Your task to perform on an android device: add a label to a message in the gmail app Image 0: 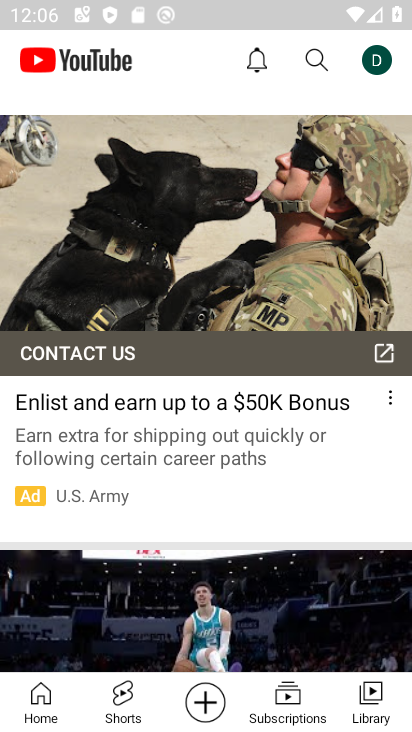
Step 0: press home button
Your task to perform on an android device: add a label to a message in the gmail app Image 1: 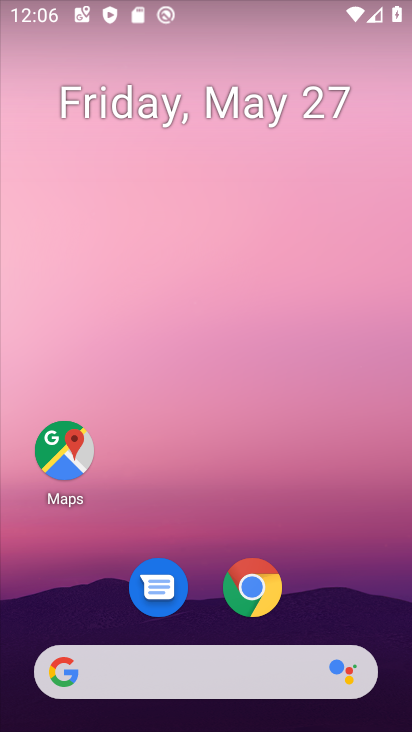
Step 1: drag from (115, 727) to (89, 5)
Your task to perform on an android device: add a label to a message in the gmail app Image 2: 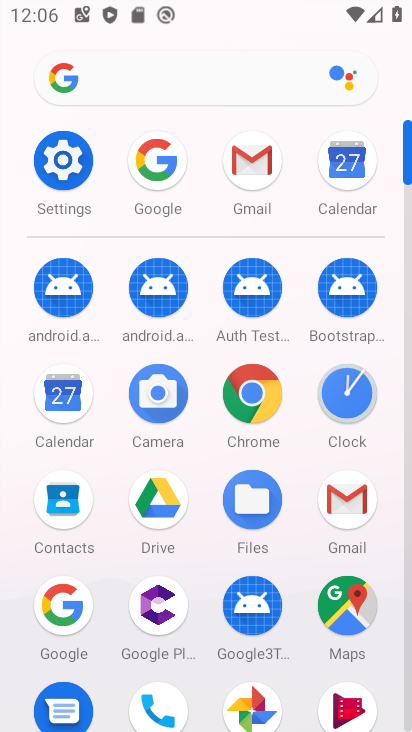
Step 2: click (251, 172)
Your task to perform on an android device: add a label to a message in the gmail app Image 3: 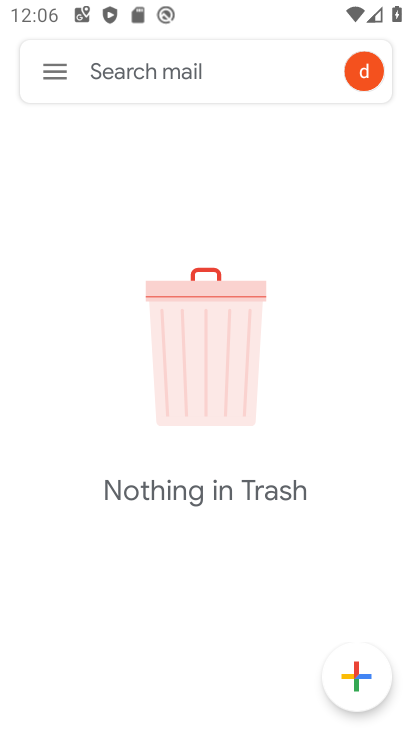
Step 3: click (46, 72)
Your task to perform on an android device: add a label to a message in the gmail app Image 4: 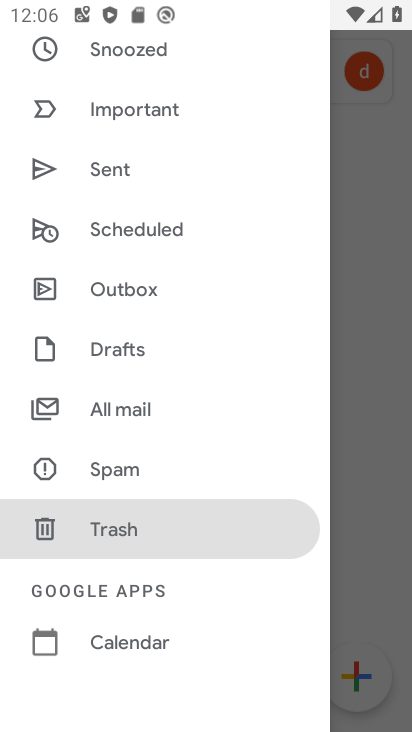
Step 4: click (165, 414)
Your task to perform on an android device: add a label to a message in the gmail app Image 5: 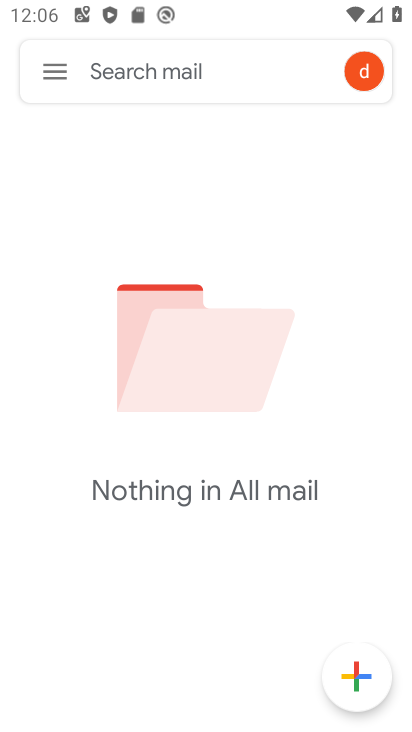
Step 5: click (48, 68)
Your task to perform on an android device: add a label to a message in the gmail app Image 6: 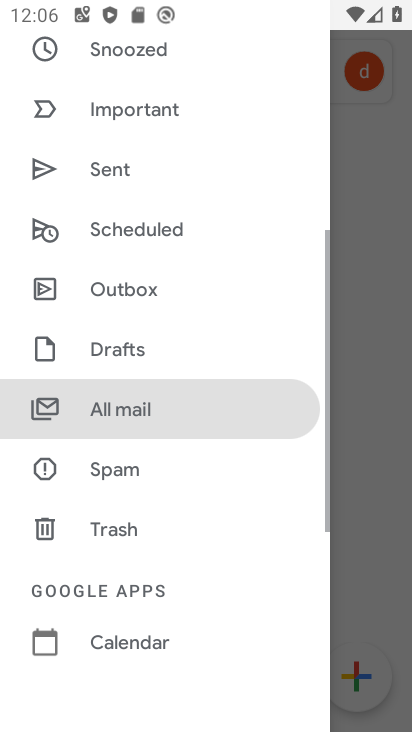
Step 6: drag from (224, 90) to (248, 673)
Your task to perform on an android device: add a label to a message in the gmail app Image 7: 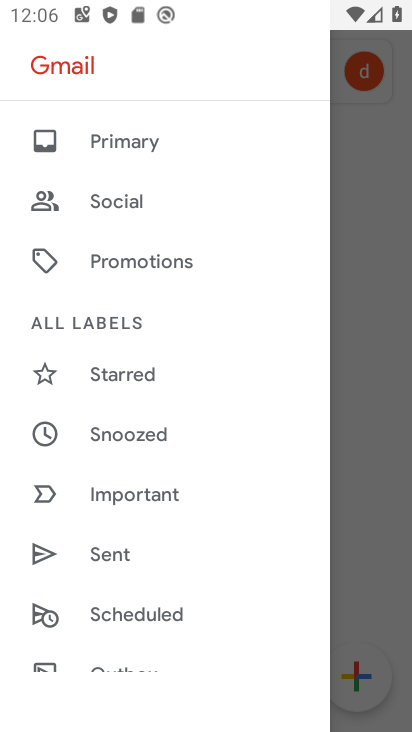
Step 7: click (130, 161)
Your task to perform on an android device: add a label to a message in the gmail app Image 8: 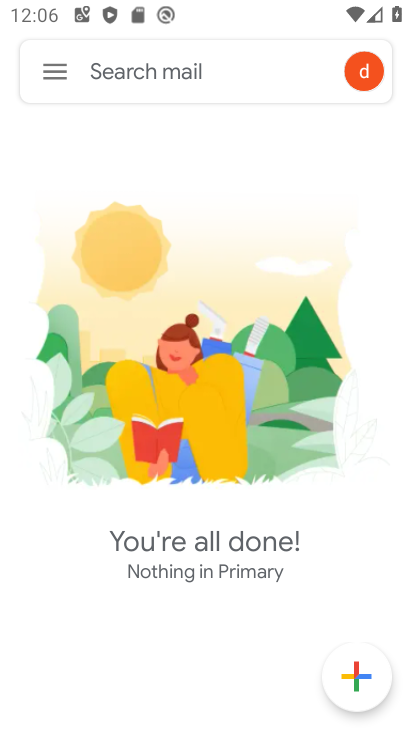
Step 8: click (64, 76)
Your task to perform on an android device: add a label to a message in the gmail app Image 9: 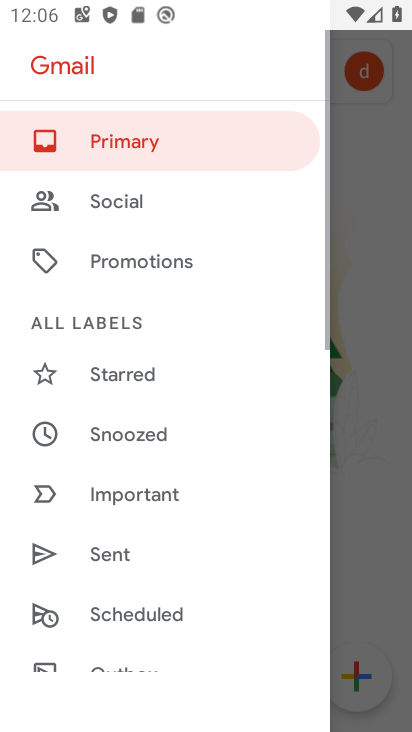
Step 9: click (168, 209)
Your task to perform on an android device: add a label to a message in the gmail app Image 10: 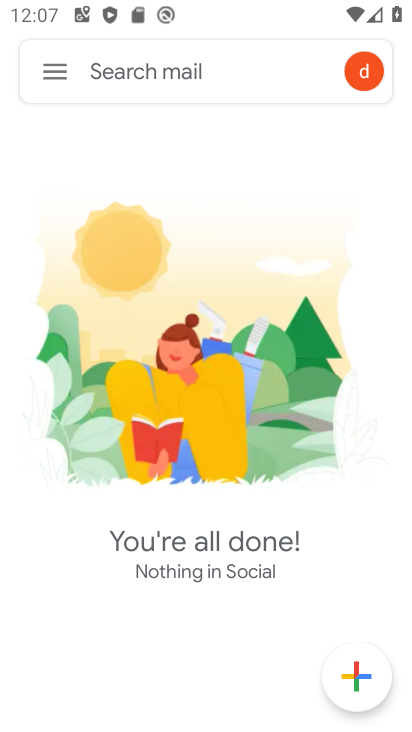
Step 10: click (54, 75)
Your task to perform on an android device: add a label to a message in the gmail app Image 11: 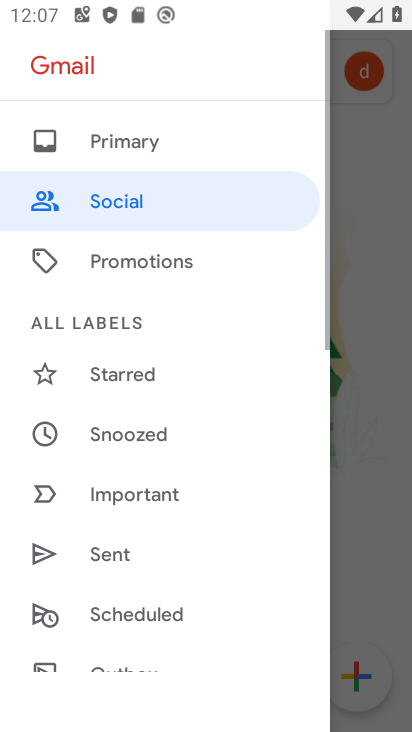
Step 11: click (130, 265)
Your task to perform on an android device: add a label to a message in the gmail app Image 12: 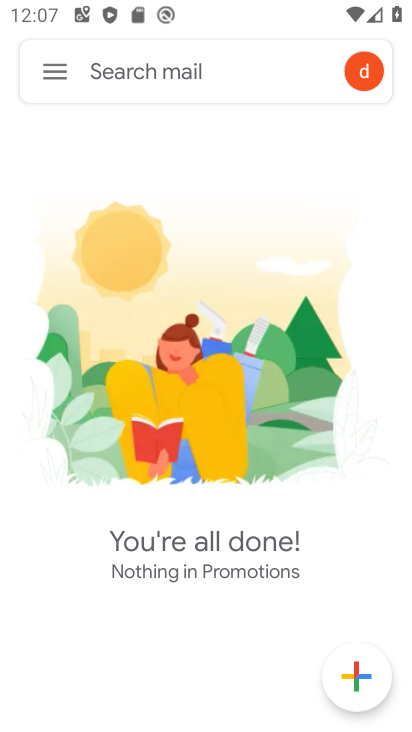
Step 12: click (37, 69)
Your task to perform on an android device: add a label to a message in the gmail app Image 13: 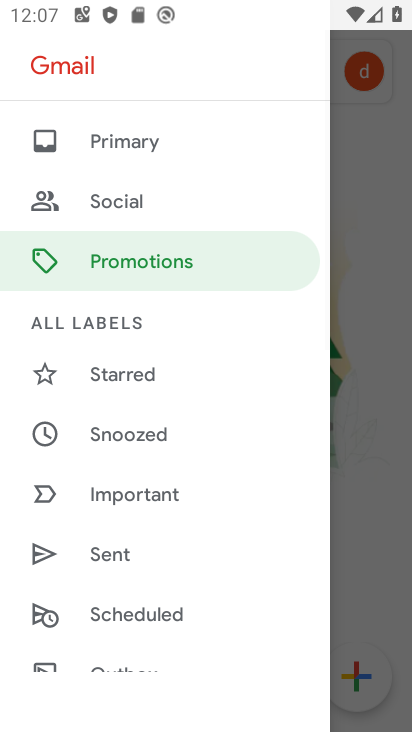
Step 13: drag from (233, 612) to (259, 225)
Your task to perform on an android device: add a label to a message in the gmail app Image 14: 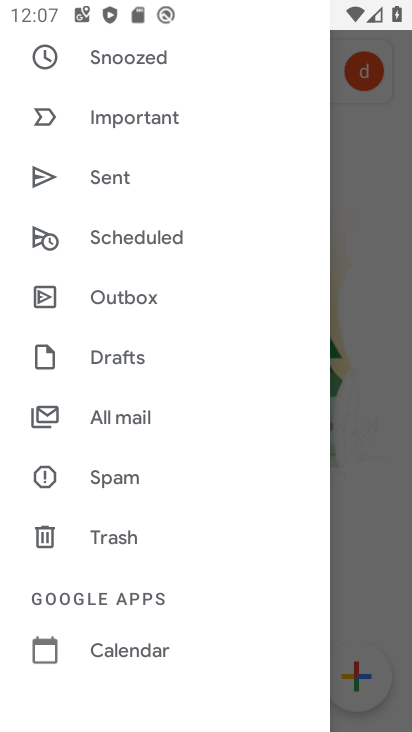
Step 14: click (389, 433)
Your task to perform on an android device: add a label to a message in the gmail app Image 15: 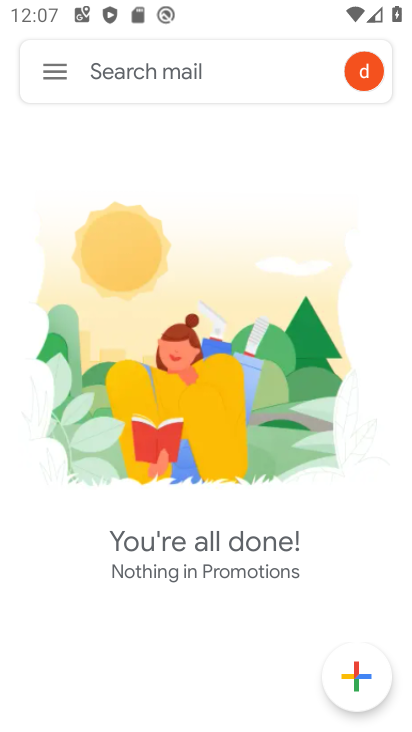
Step 15: task complete